Your task to perform on an android device: Go to Google Image 0: 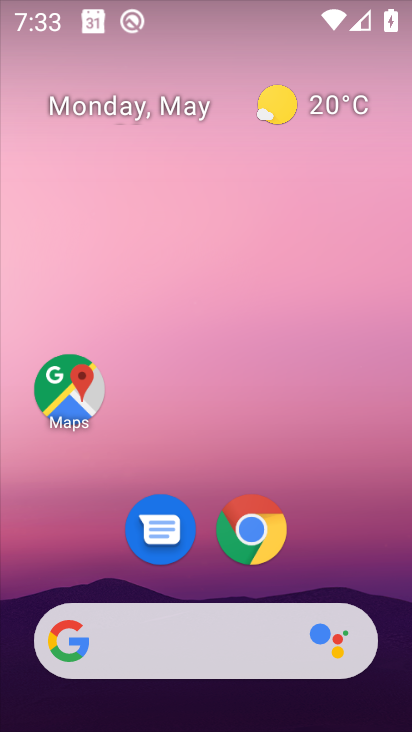
Step 0: click (119, 652)
Your task to perform on an android device: Go to Google Image 1: 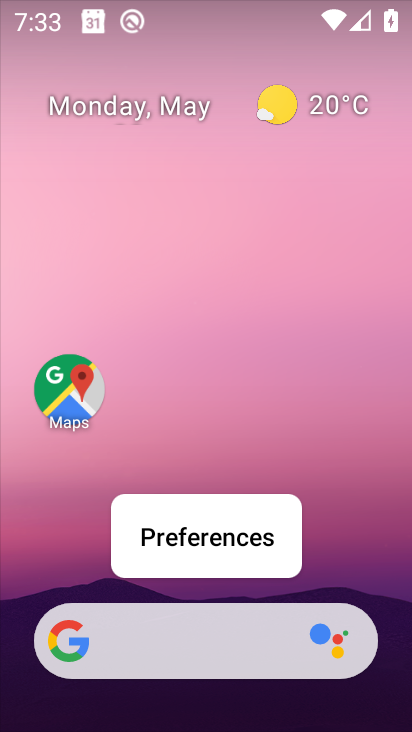
Step 1: click (169, 633)
Your task to perform on an android device: Go to Google Image 2: 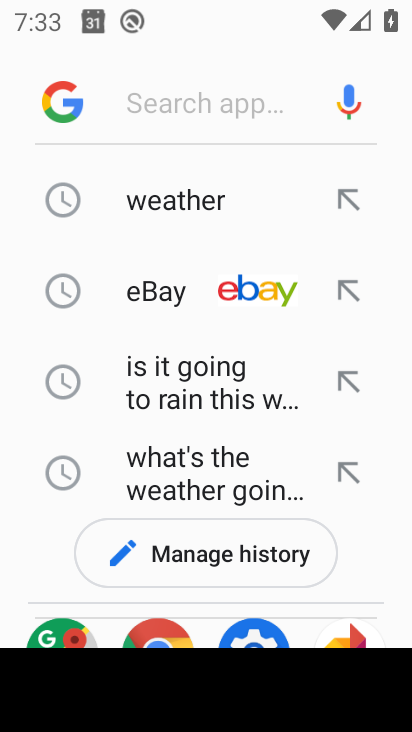
Step 2: click (55, 101)
Your task to perform on an android device: Go to Google Image 3: 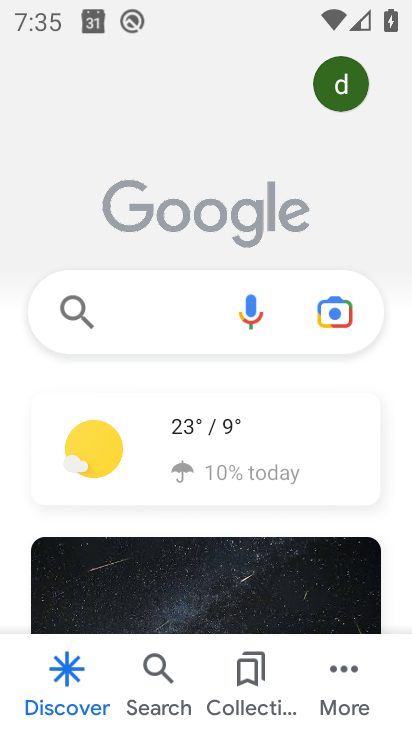
Step 3: task complete